Your task to perform on an android device: Open calendar and show me the second week of next month Image 0: 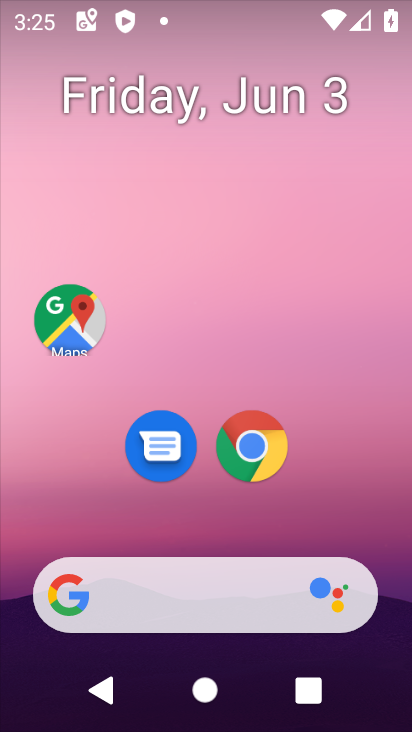
Step 0: drag from (320, 535) to (273, 58)
Your task to perform on an android device: Open calendar and show me the second week of next month Image 1: 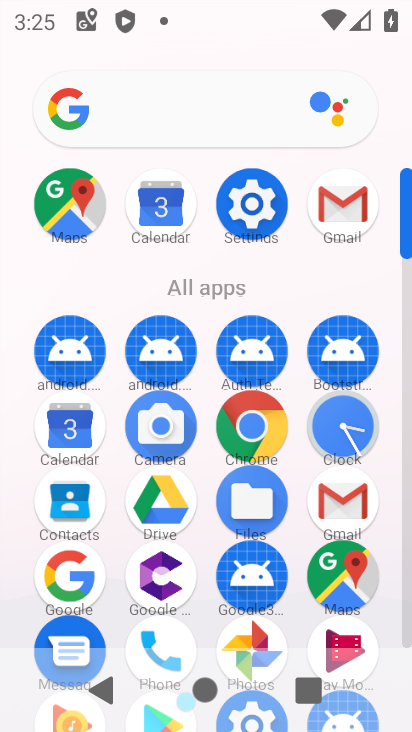
Step 1: click (55, 437)
Your task to perform on an android device: Open calendar and show me the second week of next month Image 2: 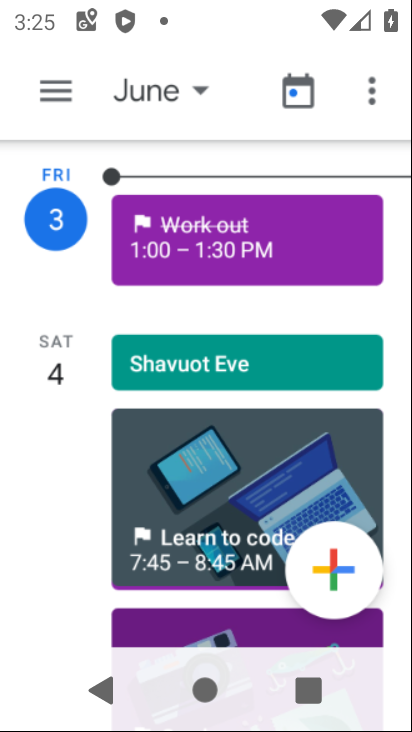
Step 2: task complete